Your task to perform on an android device: toggle location history Image 0: 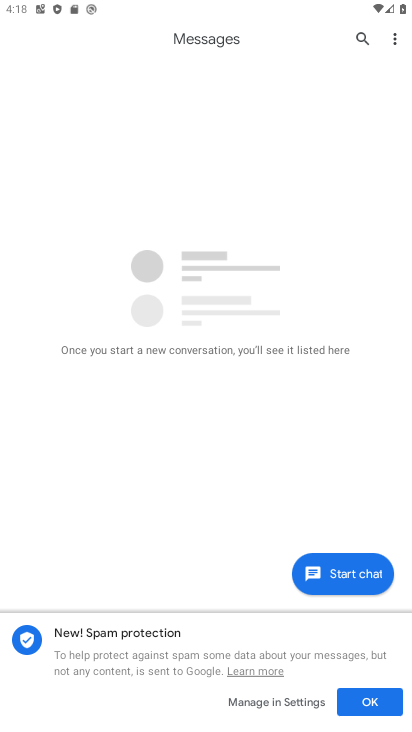
Step 0: press home button
Your task to perform on an android device: toggle location history Image 1: 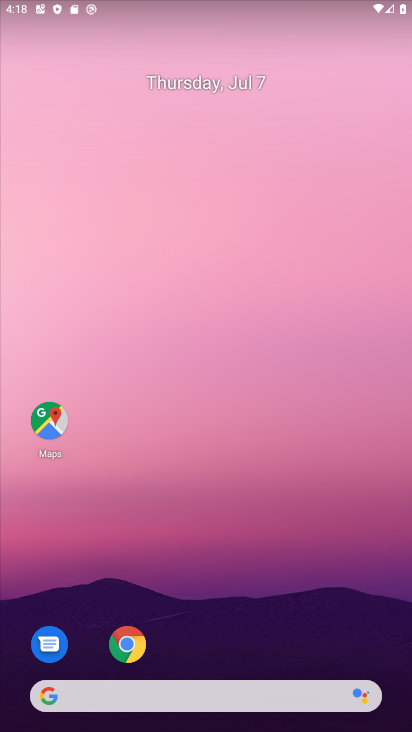
Step 1: drag from (245, 625) to (264, 50)
Your task to perform on an android device: toggle location history Image 2: 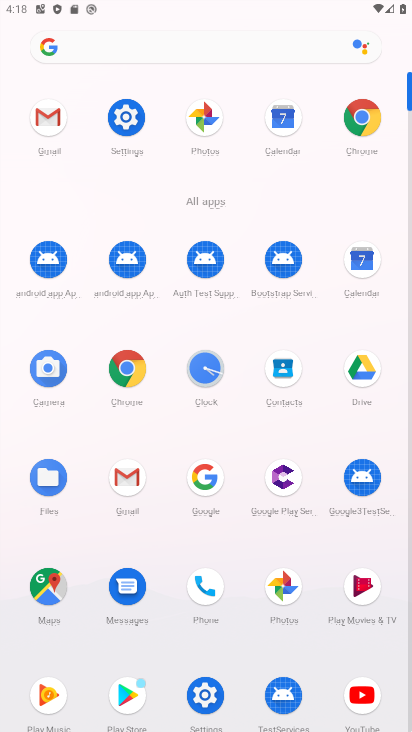
Step 2: click (128, 122)
Your task to perform on an android device: toggle location history Image 3: 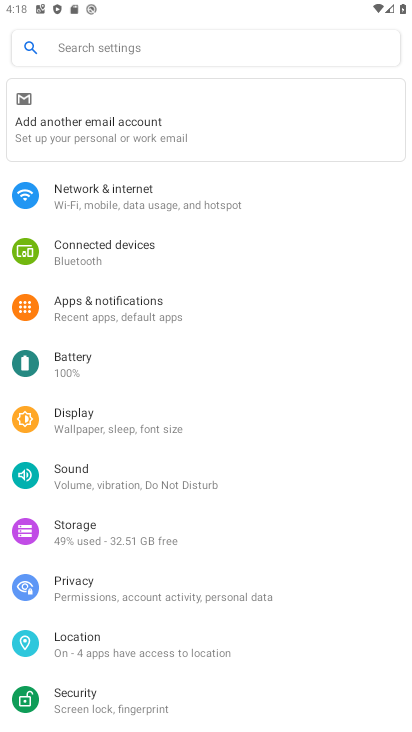
Step 3: click (124, 649)
Your task to perform on an android device: toggle location history Image 4: 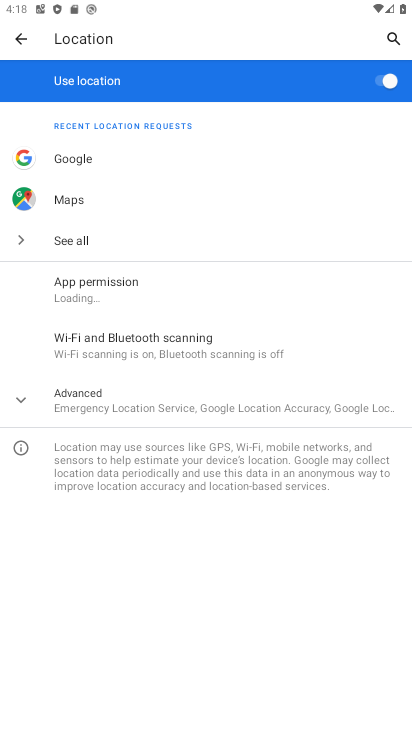
Step 4: click (134, 393)
Your task to perform on an android device: toggle location history Image 5: 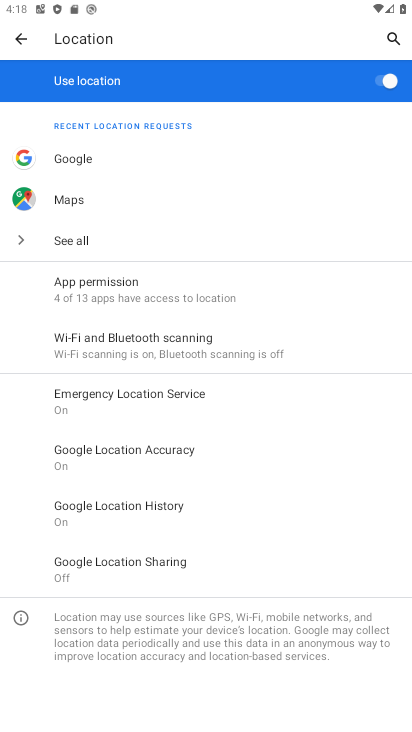
Step 5: click (152, 494)
Your task to perform on an android device: toggle location history Image 6: 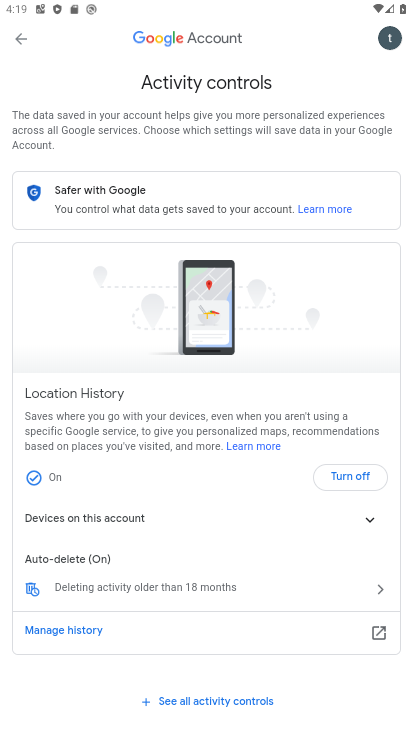
Step 6: click (353, 470)
Your task to perform on an android device: toggle location history Image 7: 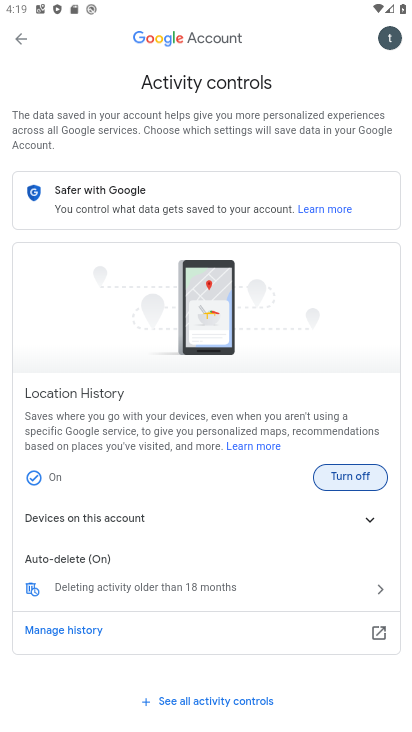
Step 7: click (346, 478)
Your task to perform on an android device: toggle location history Image 8: 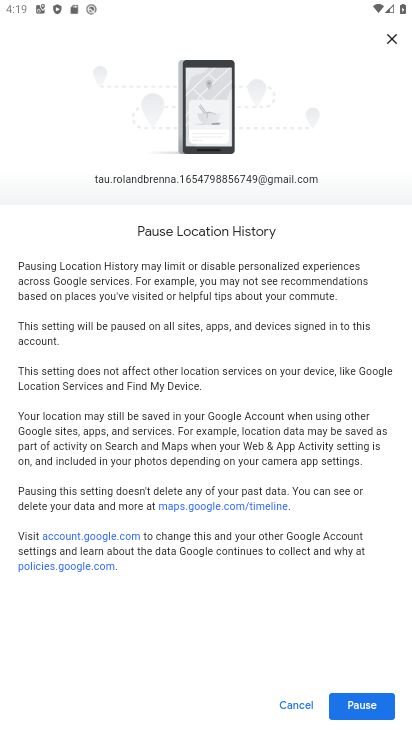
Step 8: click (357, 708)
Your task to perform on an android device: toggle location history Image 9: 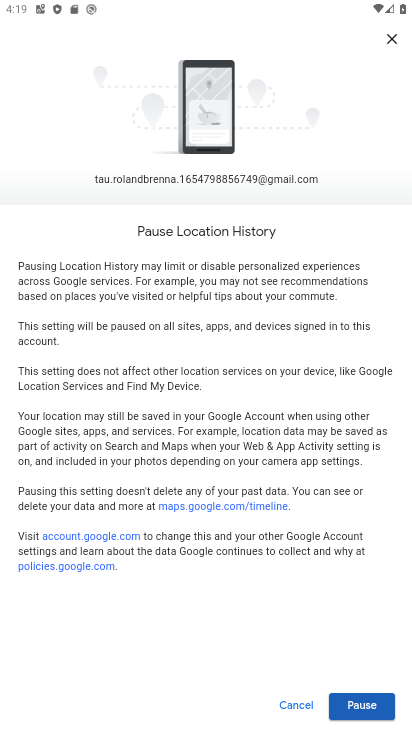
Step 9: click (369, 704)
Your task to perform on an android device: toggle location history Image 10: 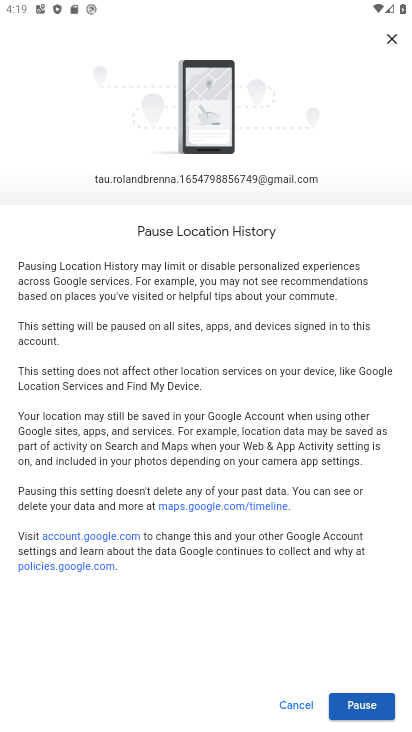
Step 10: click (369, 704)
Your task to perform on an android device: toggle location history Image 11: 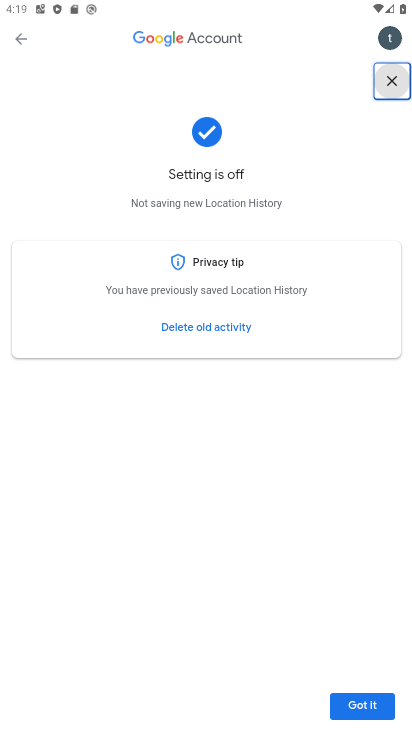
Step 11: click (363, 709)
Your task to perform on an android device: toggle location history Image 12: 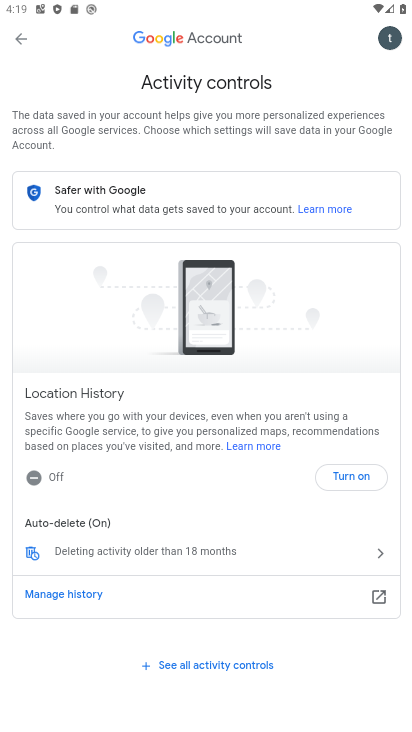
Step 12: task complete